Your task to perform on an android device: Open the web browser Image 0: 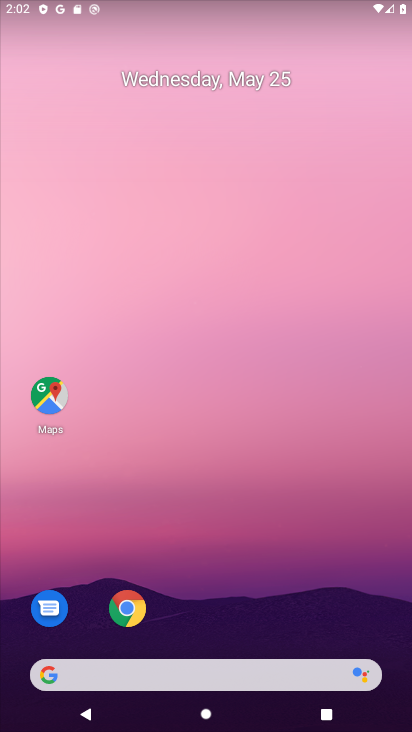
Step 0: click (124, 613)
Your task to perform on an android device: Open the web browser Image 1: 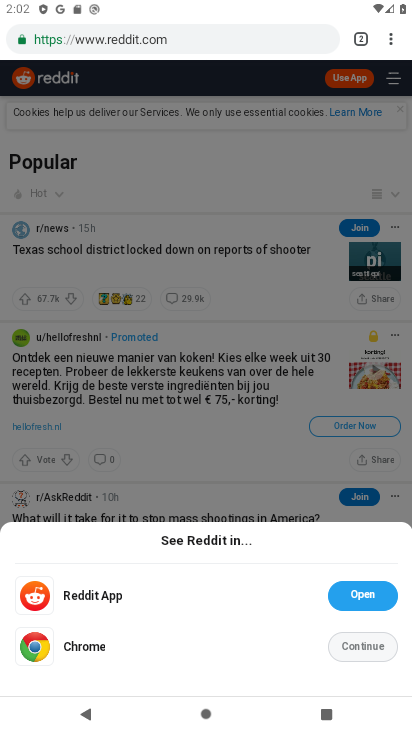
Step 1: task complete